Your task to perform on an android device: turn on airplane mode Image 0: 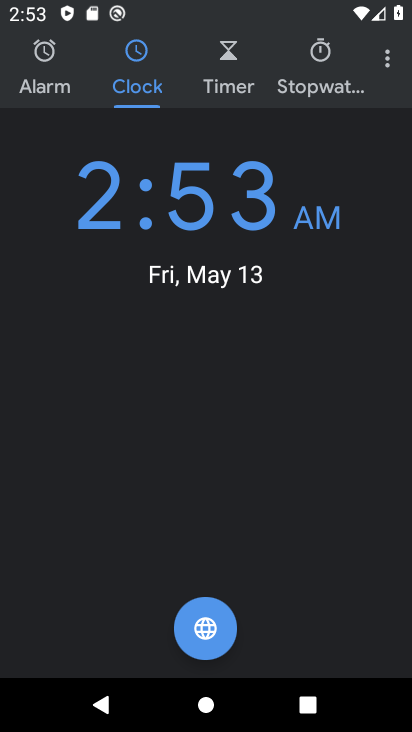
Step 0: drag from (236, 0) to (140, 706)
Your task to perform on an android device: turn on airplane mode Image 1: 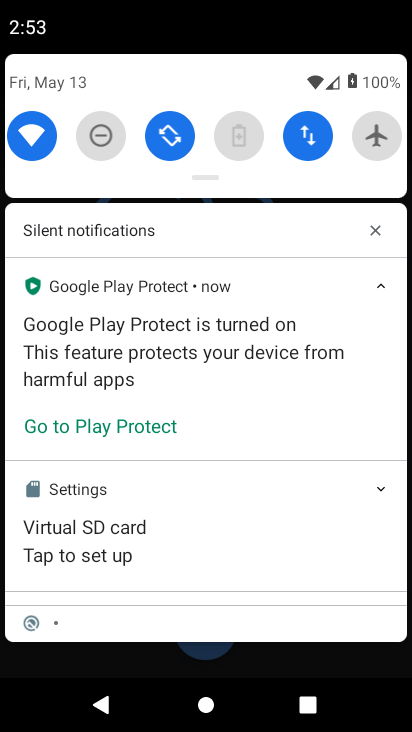
Step 1: task complete